Your task to perform on an android device: stop showing notifications on the lock screen Image 0: 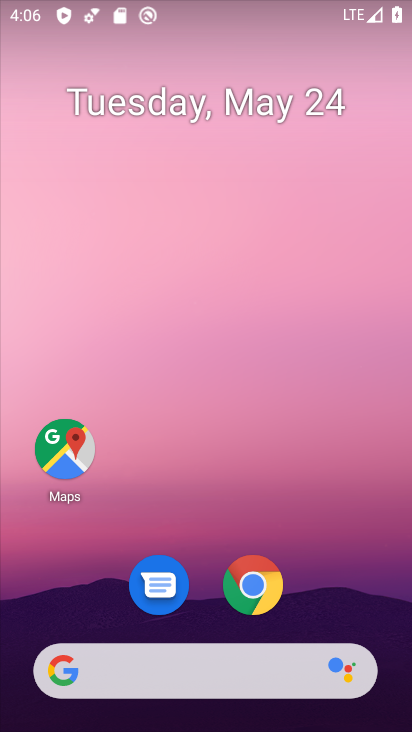
Step 0: drag from (365, 512) to (305, 52)
Your task to perform on an android device: stop showing notifications on the lock screen Image 1: 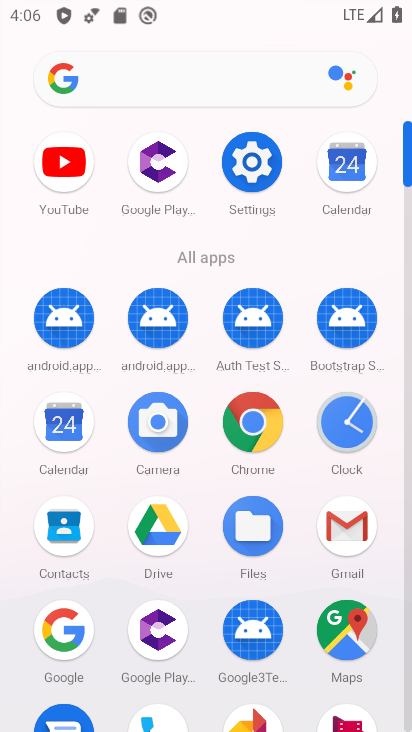
Step 1: click (258, 138)
Your task to perform on an android device: stop showing notifications on the lock screen Image 2: 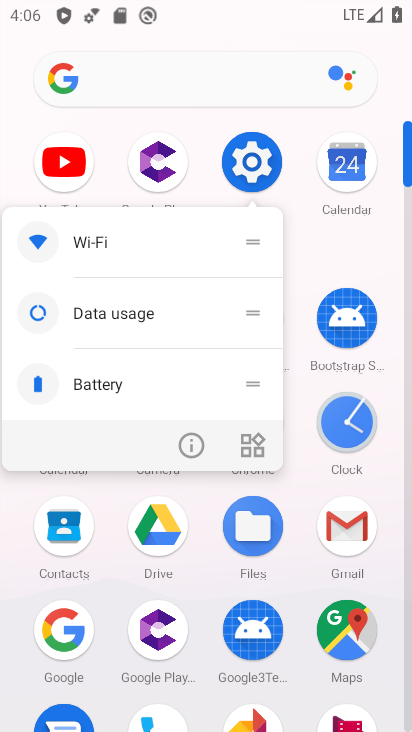
Step 2: click (253, 144)
Your task to perform on an android device: stop showing notifications on the lock screen Image 3: 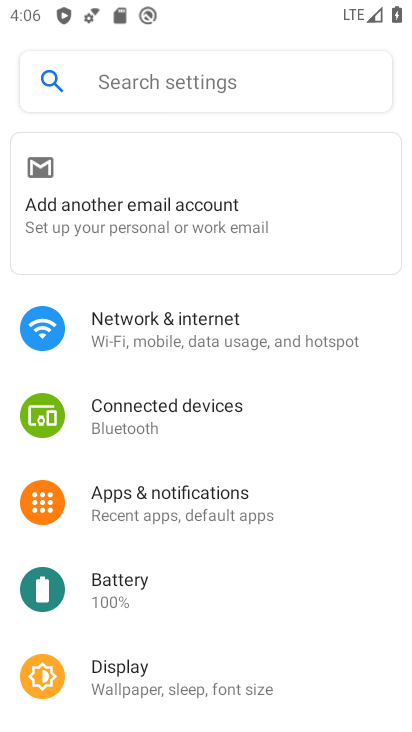
Step 3: click (204, 496)
Your task to perform on an android device: stop showing notifications on the lock screen Image 4: 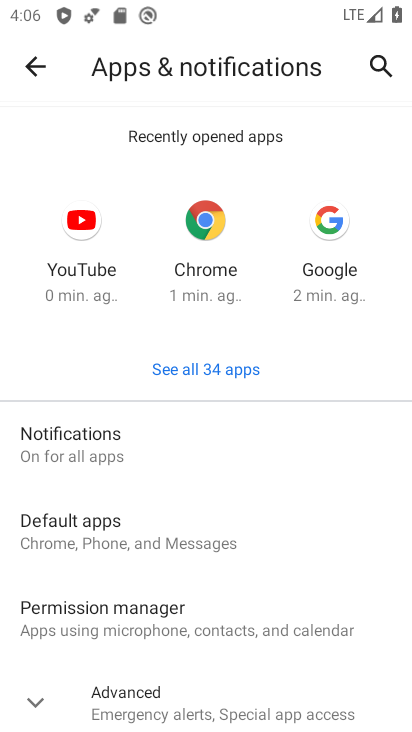
Step 4: click (200, 440)
Your task to perform on an android device: stop showing notifications on the lock screen Image 5: 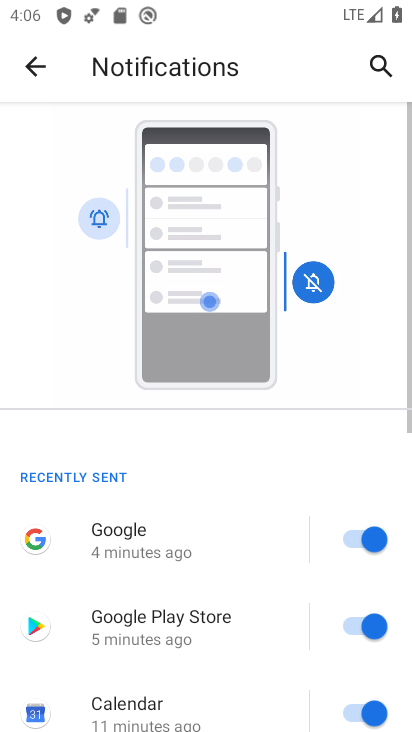
Step 5: drag from (236, 555) to (263, 129)
Your task to perform on an android device: stop showing notifications on the lock screen Image 6: 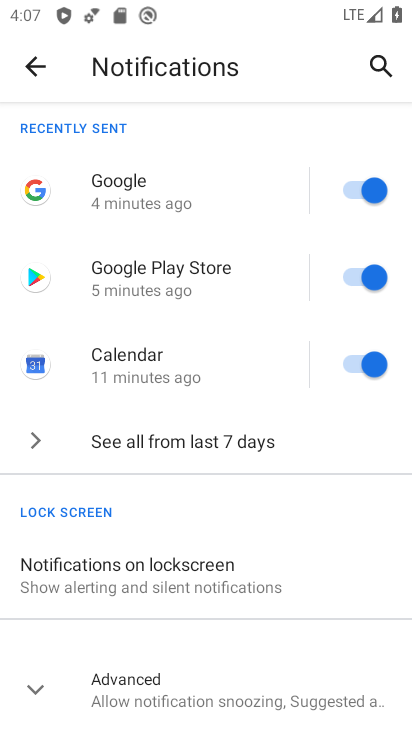
Step 6: drag from (264, 548) to (274, 325)
Your task to perform on an android device: stop showing notifications on the lock screen Image 7: 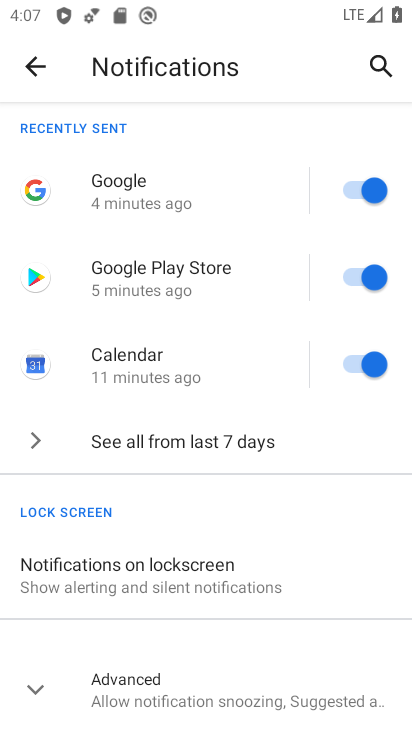
Step 7: click (222, 567)
Your task to perform on an android device: stop showing notifications on the lock screen Image 8: 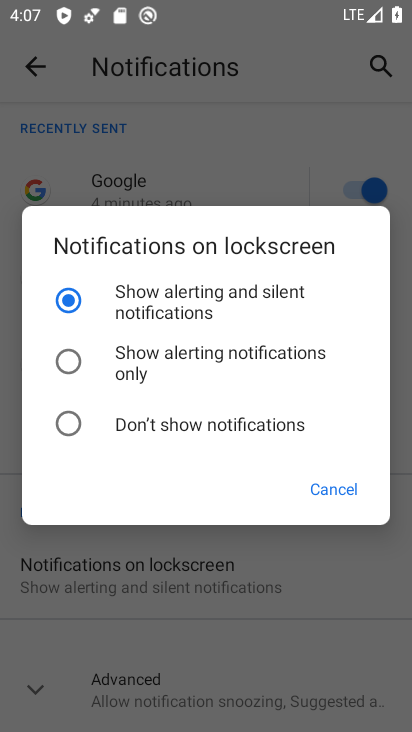
Step 8: click (87, 421)
Your task to perform on an android device: stop showing notifications on the lock screen Image 9: 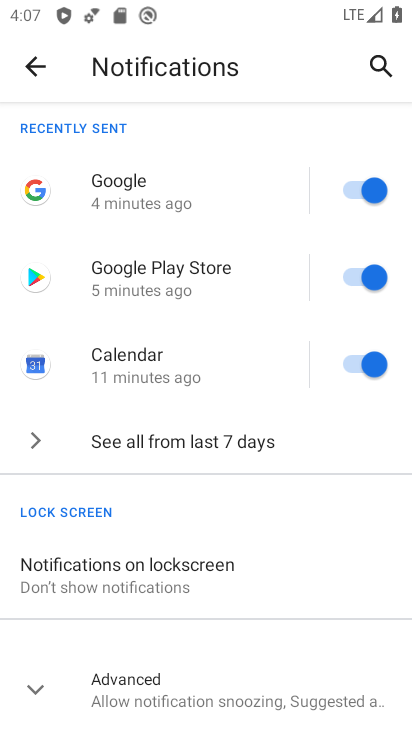
Step 9: task complete